Your task to perform on an android device: Go to network settings Image 0: 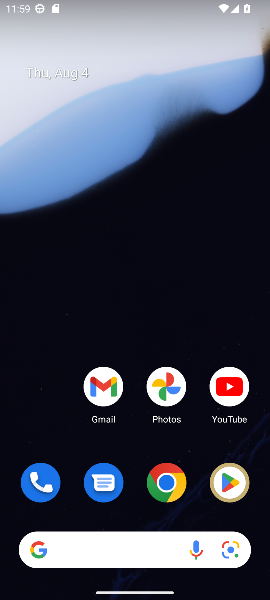
Step 0: drag from (141, 465) to (148, 180)
Your task to perform on an android device: Go to network settings Image 1: 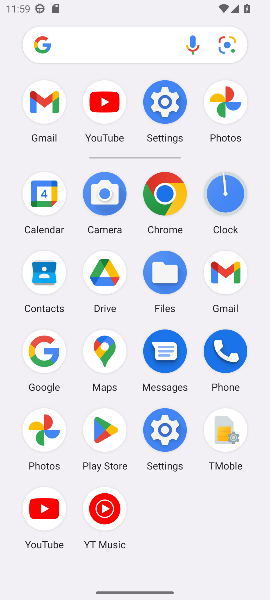
Step 1: click (150, 114)
Your task to perform on an android device: Go to network settings Image 2: 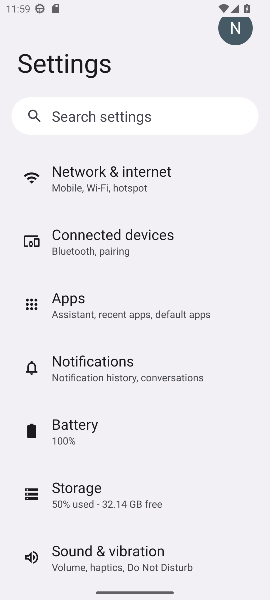
Step 2: click (169, 161)
Your task to perform on an android device: Go to network settings Image 3: 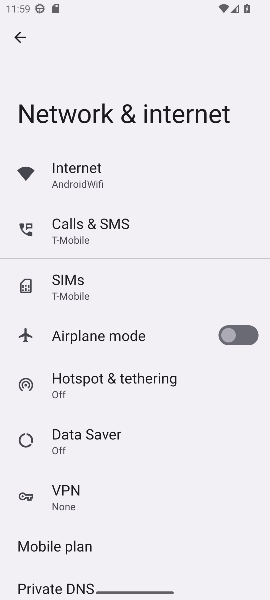
Step 3: task complete